Your task to perform on an android device: turn on airplane mode Image 0: 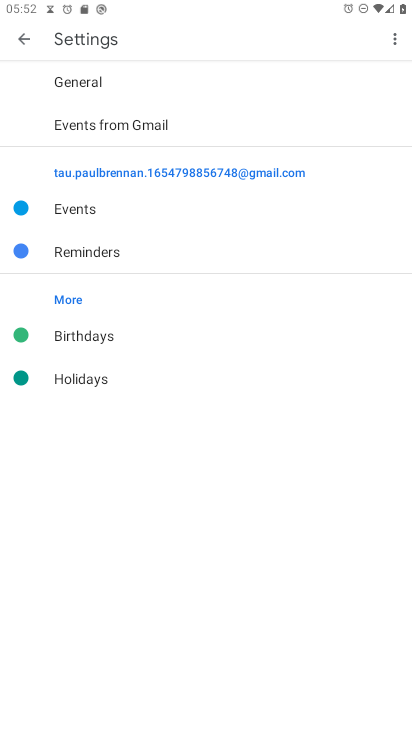
Step 0: press home button
Your task to perform on an android device: turn on airplane mode Image 1: 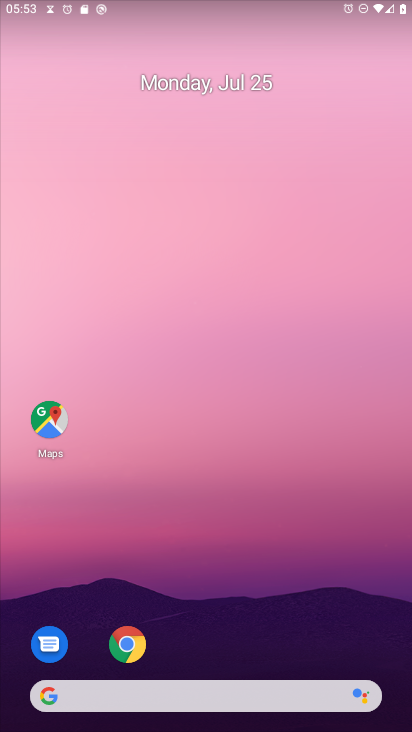
Step 1: drag from (209, 6) to (182, 439)
Your task to perform on an android device: turn on airplane mode Image 2: 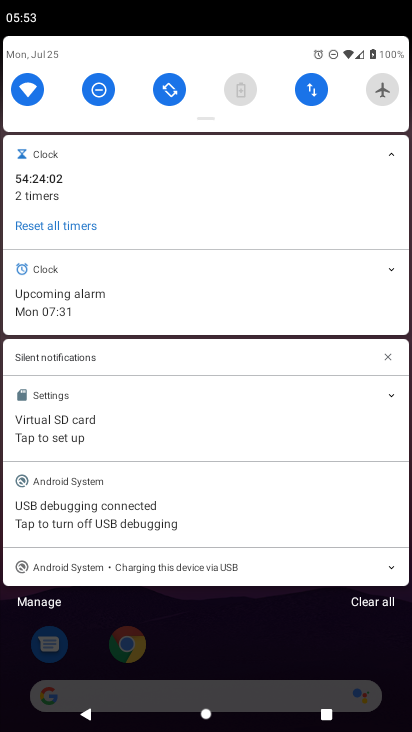
Step 2: click (384, 84)
Your task to perform on an android device: turn on airplane mode Image 3: 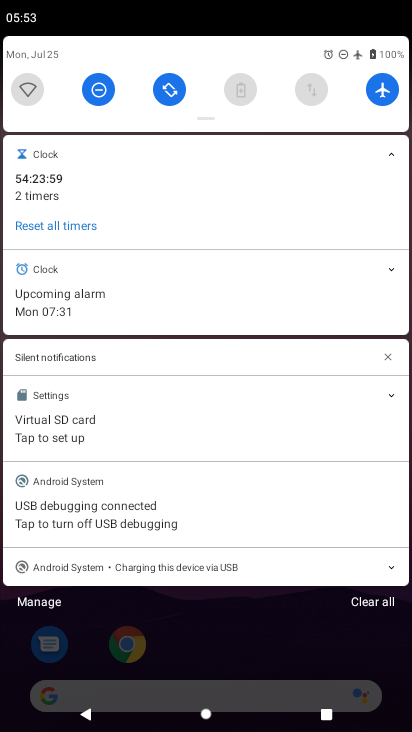
Step 3: task complete